Your task to perform on an android device: turn off picture-in-picture Image 0: 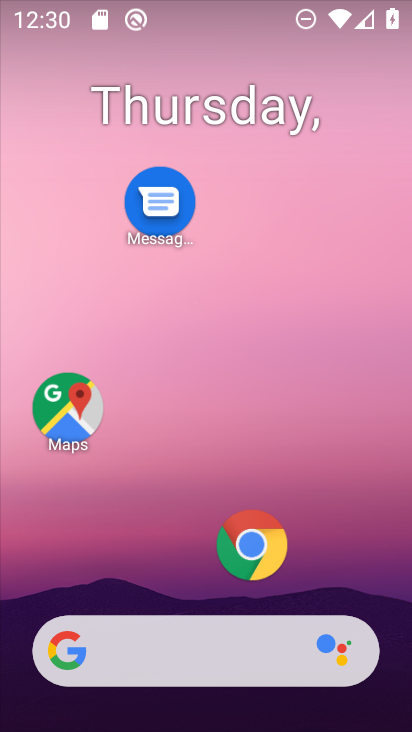
Step 0: click (266, 538)
Your task to perform on an android device: turn off picture-in-picture Image 1: 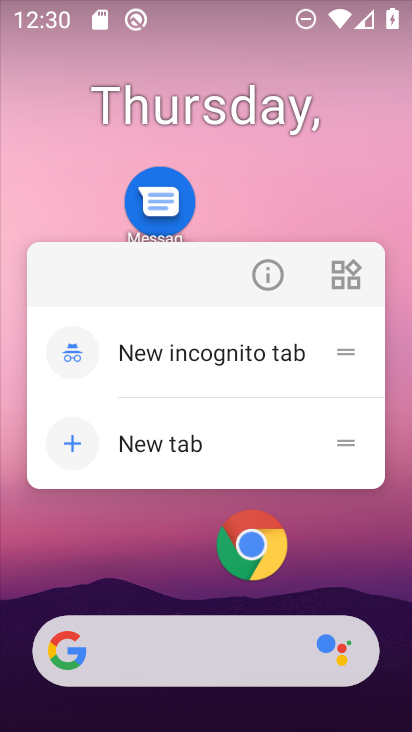
Step 1: click (278, 262)
Your task to perform on an android device: turn off picture-in-picture Image 2: 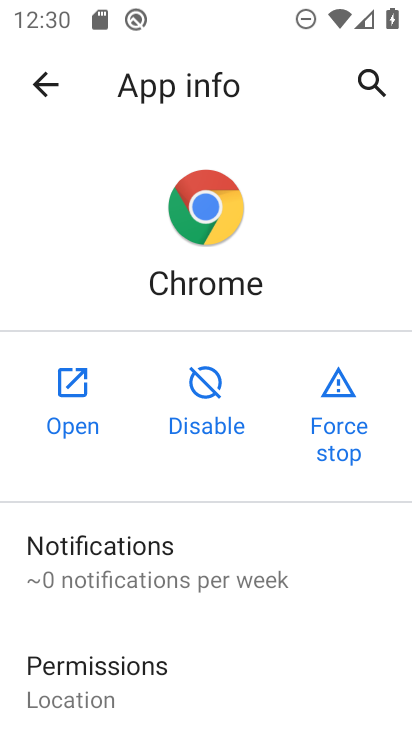
Step 2: drag from (256, 594) to (273, 220)
Your task to perform on an android device: turn off picture-in-picture Image 3: 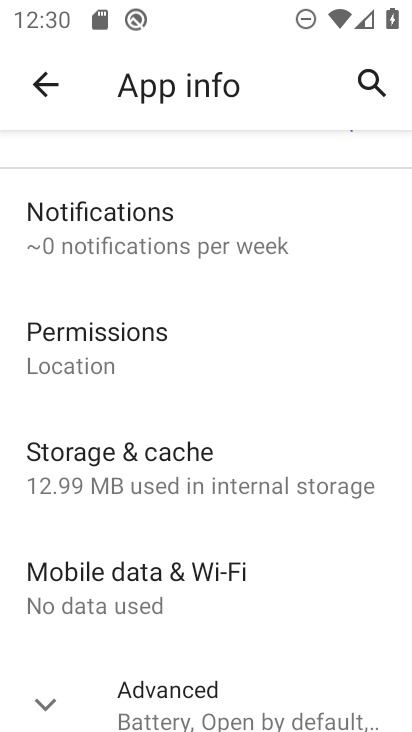
Step 3: drag from (308, 527) to (349, 156)
Your task to perform on an android device: turn off picture-in-picture Image 4: 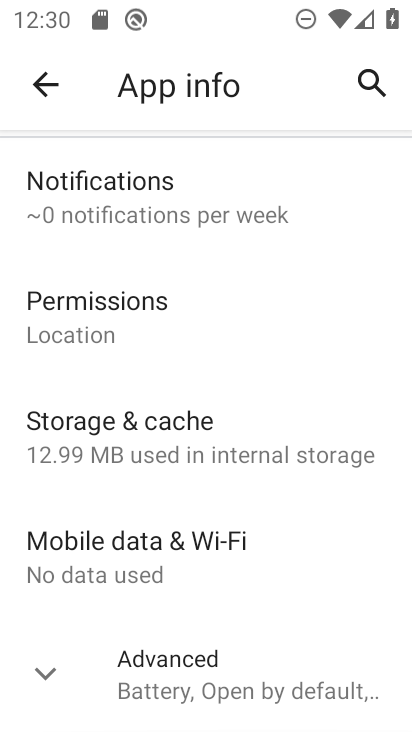
Step 4: drag from (357, 516) to (378, 259)
Your task to perform on an android device: turn off picture-in-picture Image 5: 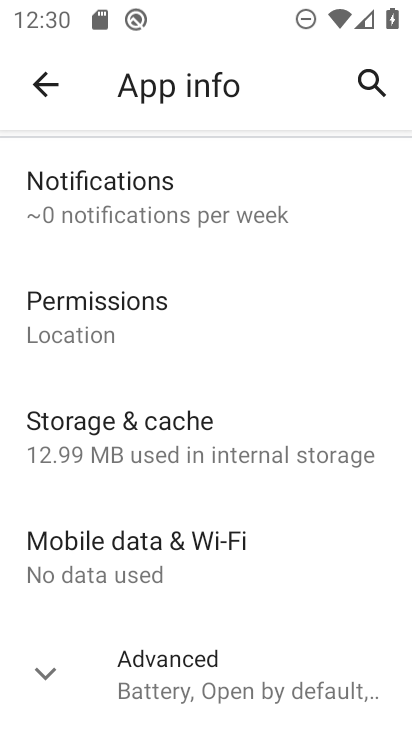
Step 5: click (205, 674)
Your task to perform on an android device: turn off picture-in-picture Image 6: 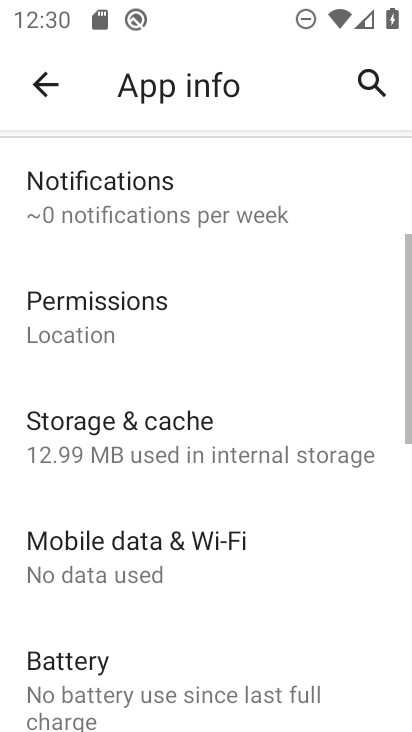
Step 6: drag from (205, 674) to (255, 373)
Your task to perform on an android device: turn off picture-in-picture Image 7: 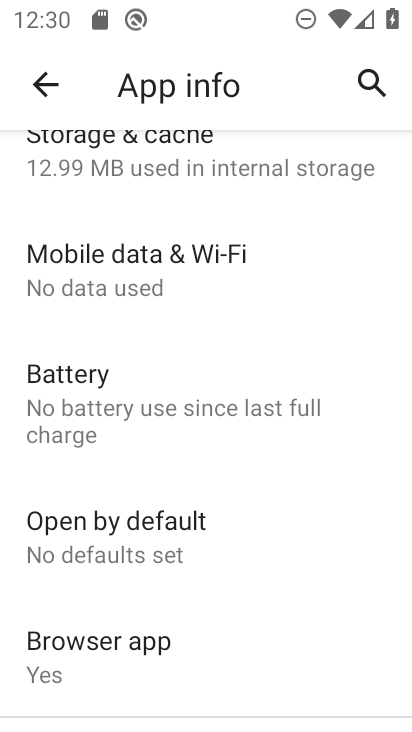
Step 7: drag from (223, 612) to (245, 343)
Your task to perform on an android device: turn off picture-in-picture Image 8: 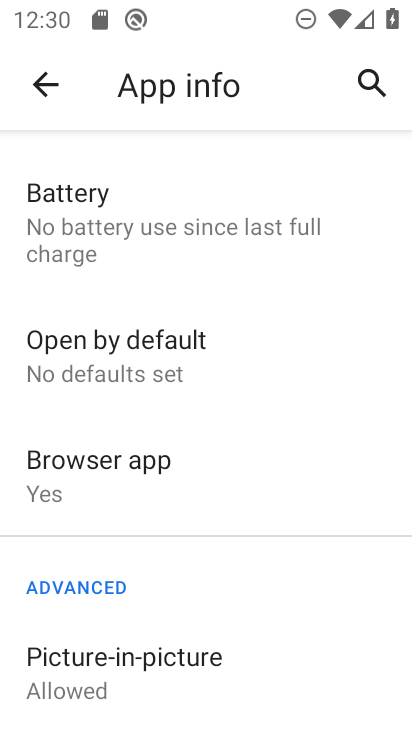
Step 8: click (235, 653)
Your task to perform on an android device: turn off picture-in-picture Image 9: 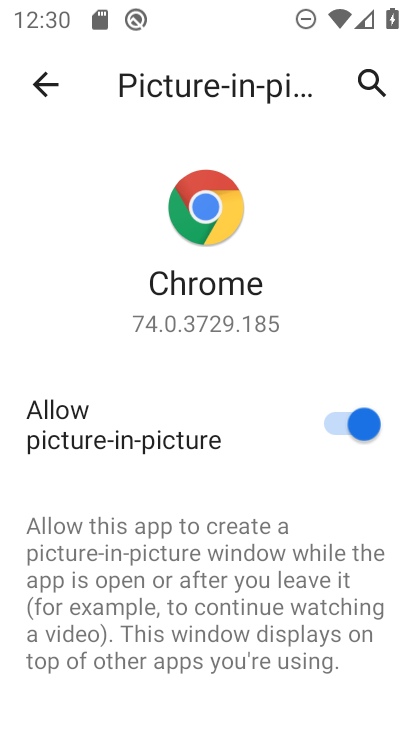
Step 9: click (349, 425)
Your task to perform on an android device: turn off picture-in-picture Image 10: 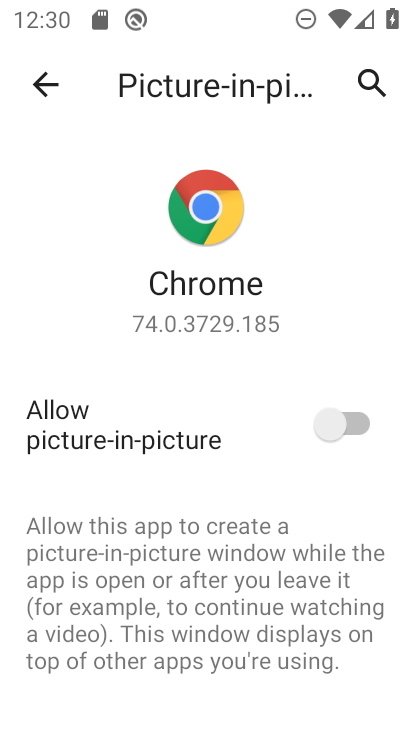
Step 10: task complete